Your task to perform on an android device: turn off smart reply in the gmail app Image 0: 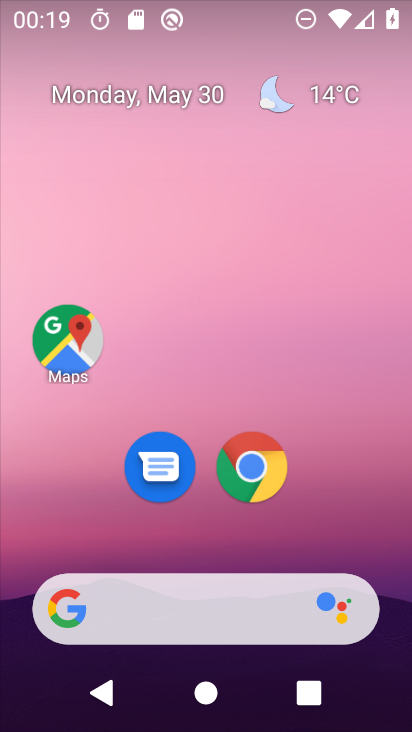
Step 0: drag from (171, 554) to (198, 196)
Your task to perform on an android device: turn off smart reply in the gmail app Image 1: 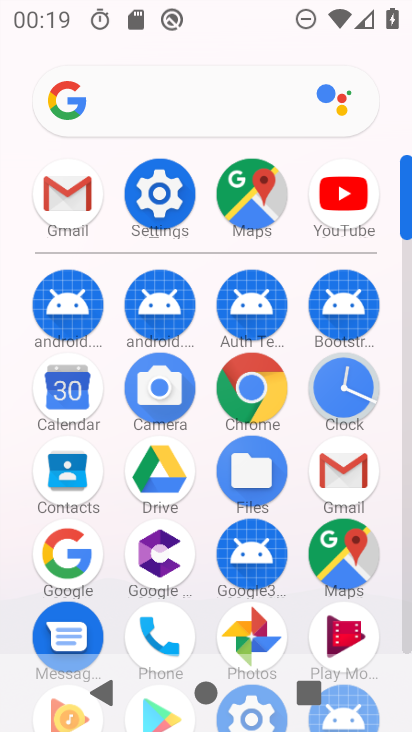
Step 1: click (371, 467)
Your task to perform on an android device: turn off smart reply in the gmail app Image 2: 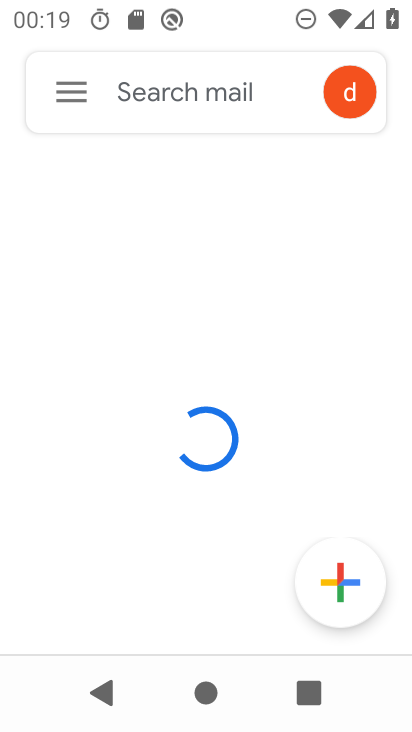
Step 2: click (76, 113)
Your task to perform on an android device: turn off smart reply in the gmail app Image 3: 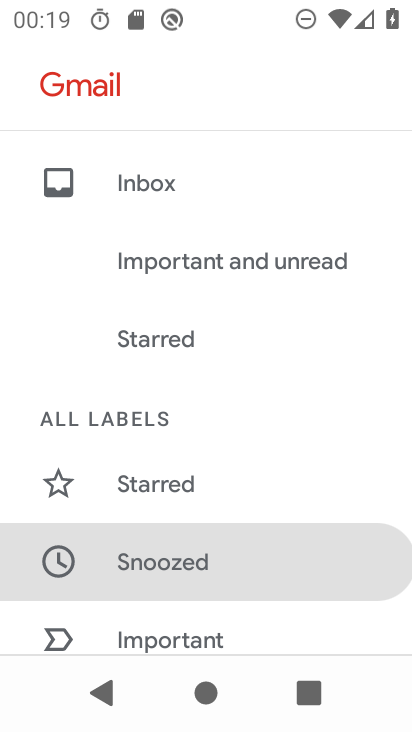
Step 3: drag from (184, 587) to (237, 215)
Your task to perform on an android device: turn off smart reply in the gmail app Image 4: 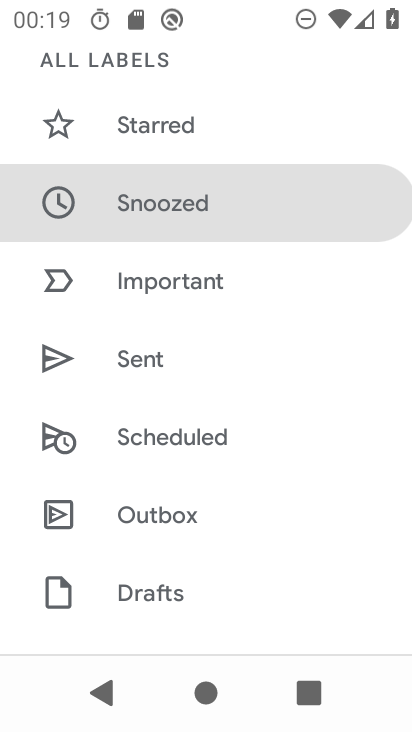
Step 4: drag from (209, 544) to (245, 157)
Your task to perform on an android device: turn off smart reply in the gmail app Image 5: 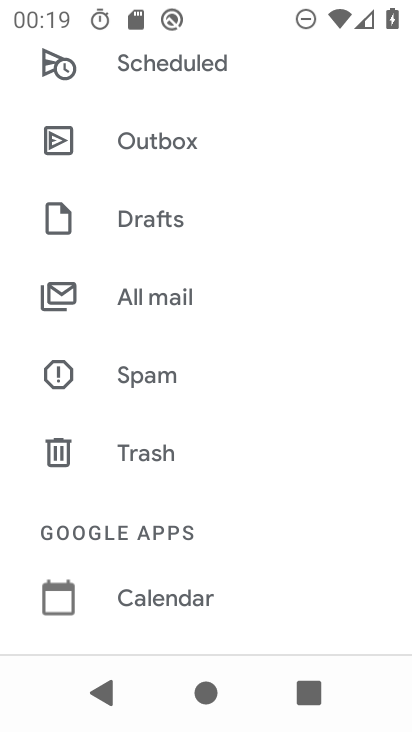
Step 5: drag from (196, 552) to (247, 180)
Your task to perform on an android device: turn off smart reply in the gmail app Image 6: 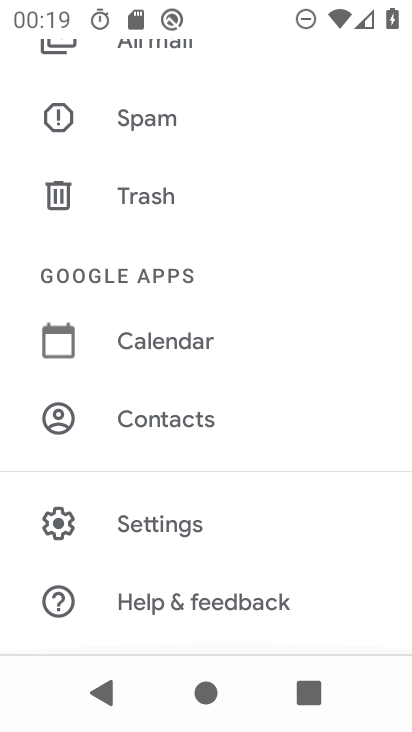
Step 6: drag from (229, 558) to (242, 274)
Your task to perform on an android device: turn off smart reply in the gmail app Image 7: 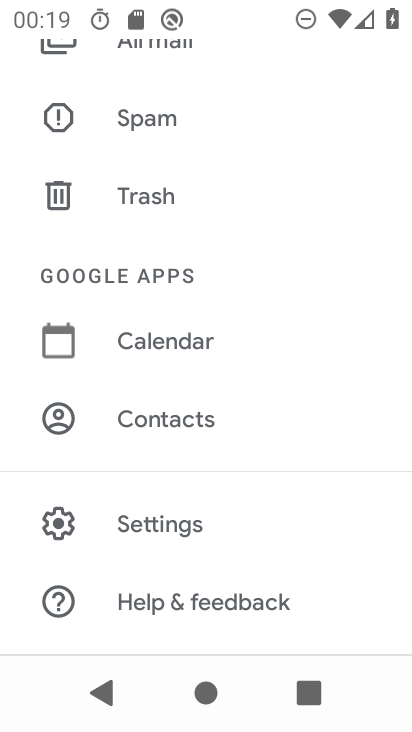
Step 7: click (208, 535)
Your task to perform on an android device: turn off smart reply in the gmail app Image 8: 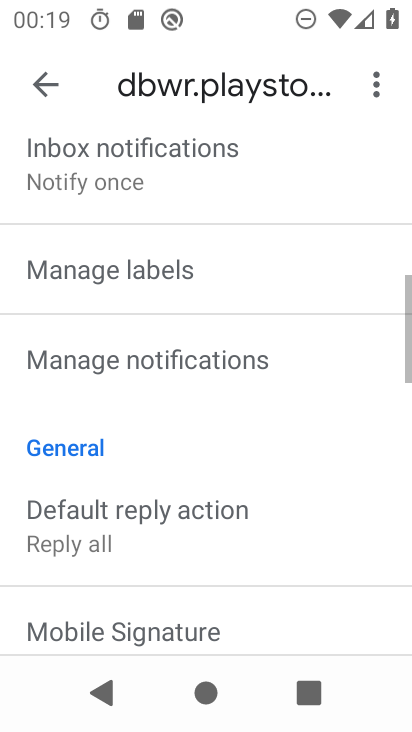
Step 8: drag from (204, 580) to (236, 243)
Your task to perform on an android device: turn off smart reply in the gmail app Image 9: 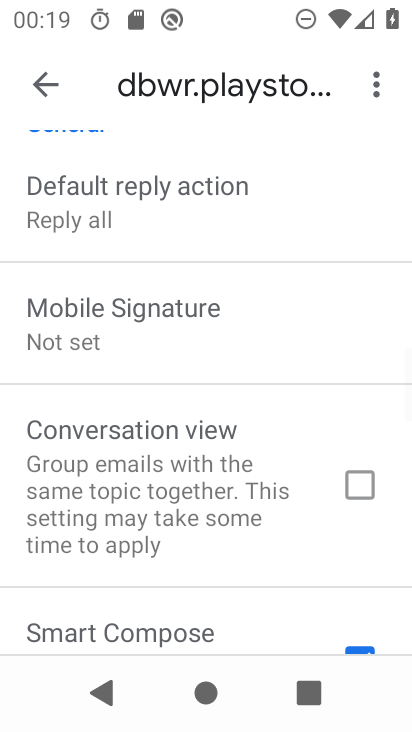
Step 9: drag from (196, 560) to (225, 344)
Your task to perform on an android device: turn off smart reply in the gmail app Image 10: 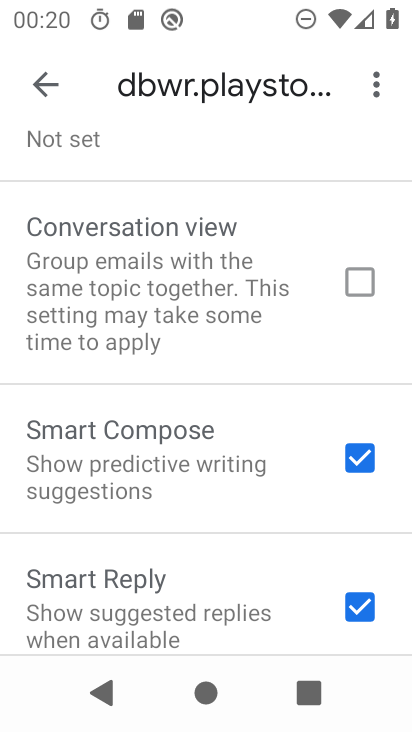
Step 10: click (366, 610)
Your task to perform on an android device: turn off smart reply in the gmail app Image 11: 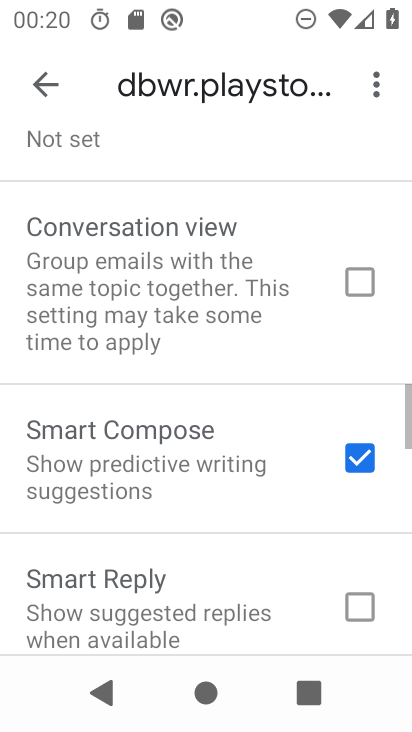
Step 11: task complete